Your task to perform on an android device: toggle notification dots Image 0: 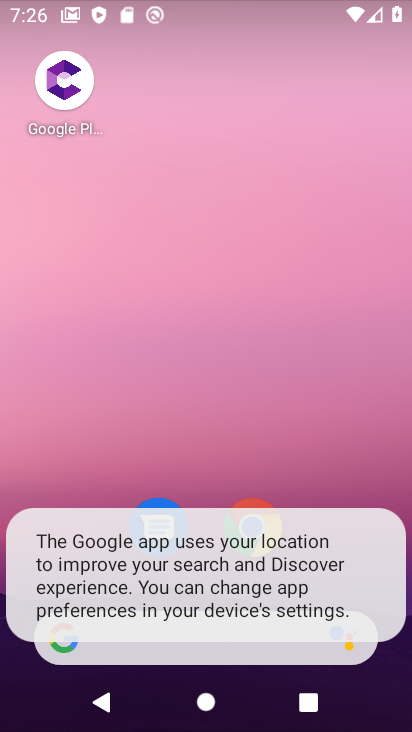
Step 0: drag from (232, 606) to (318, 64)
Your task to perform on an android device: toggle notification dots Image 1: 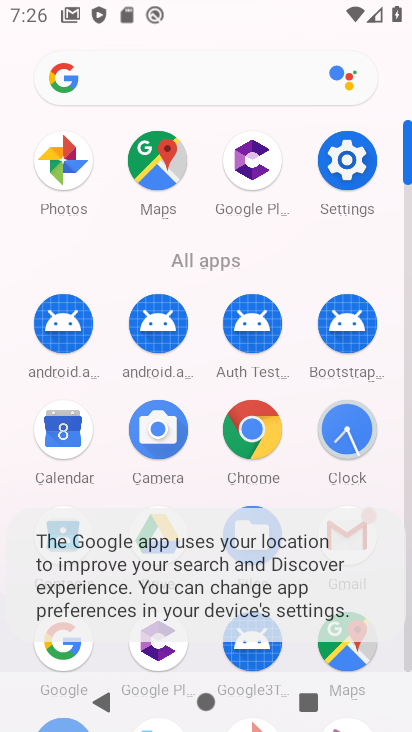
Step 1: click (352, 172)
Your task to perform on an android device: toggle notification dots Image 2: 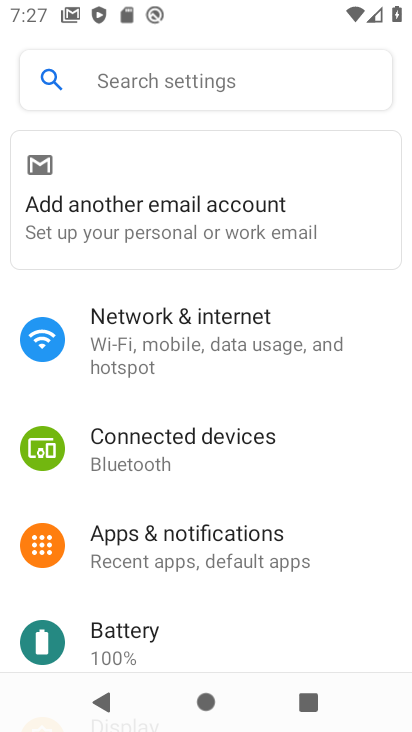
Step 2: click (158, 537)
Your task to perform on an android device: toggle notification dots Image 3: 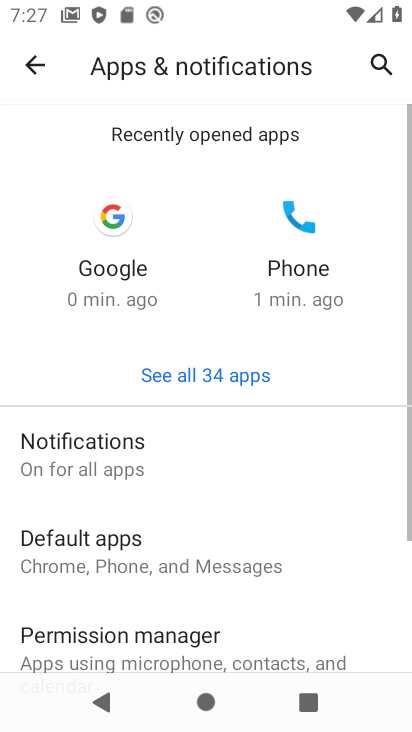
Step 3: click (144, 458)
Your task to perform on an android device: toggle notification dots Image 4: 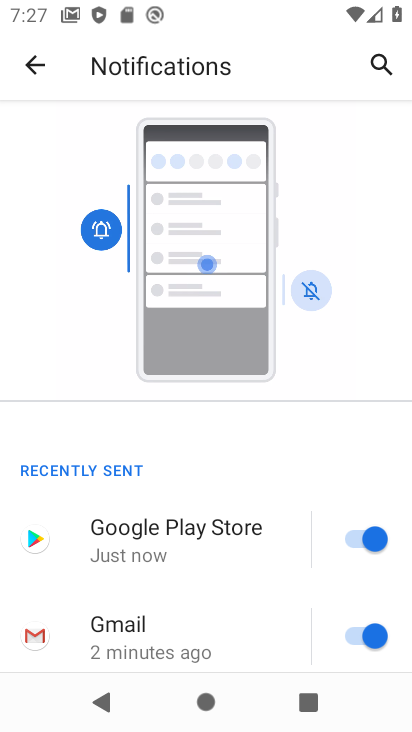
Step 4: drag from (304, 625) to (242, 0)
Your task to perform on an android device: toggle notification dots Image 5: 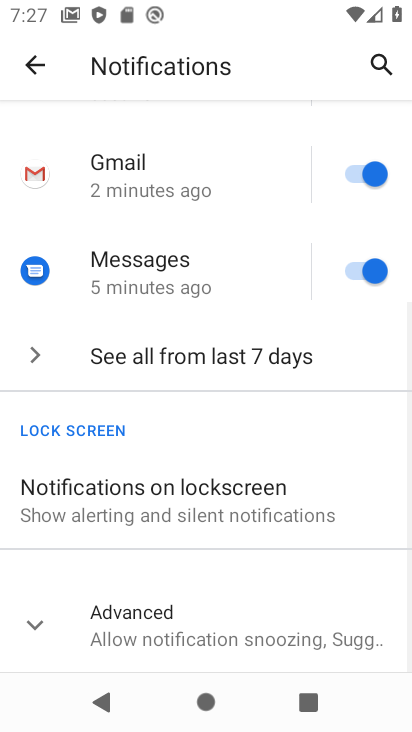
Step 5: click (181, 612)
Your task to perform on an android device: toggle notification dots Image 6: 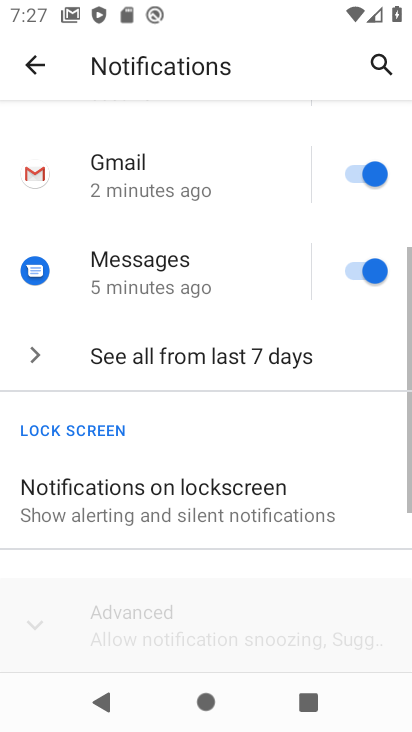
Step 6: drag from (181, 612) to (109, 134)
Your task to perform on an android device: toggle notification dots Image 7: 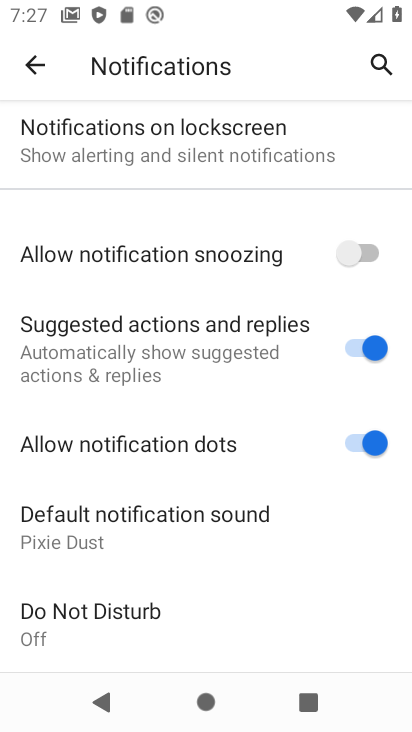
Step 7: click (361, 443)
Your task to perform on an android device: toggle notification dots Image 8: 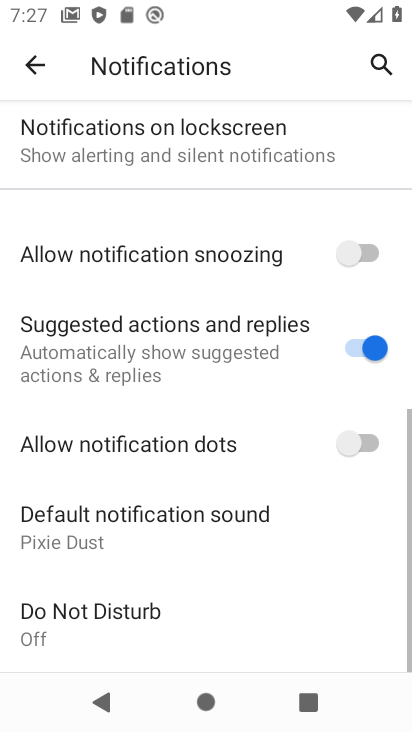
Step 8: task complete